Your task to perform on an android device: What's the weather going to be this weekend? Image 0: 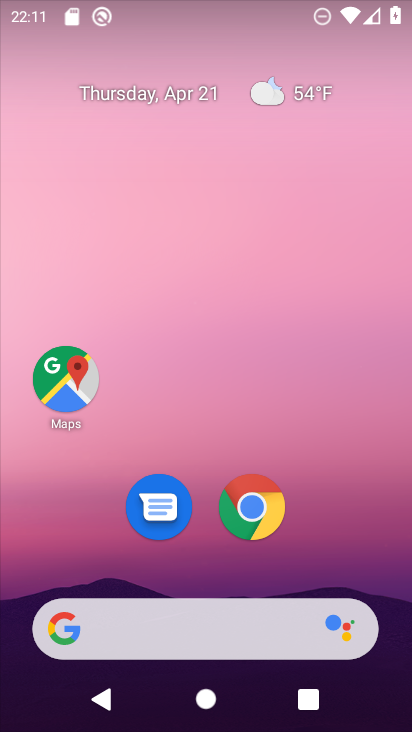
Step 0: click (136, 316)
Your task to perform on an android device: What's the weather going to be this weekend? Image 1: 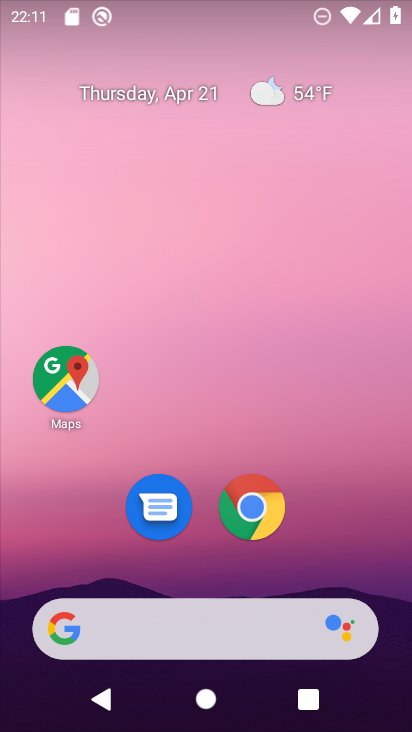
Step 1: drag from (247, 587) to (210, 294)
Your task to perform on an android device: What's the weather going to be this weekend? Image 2: 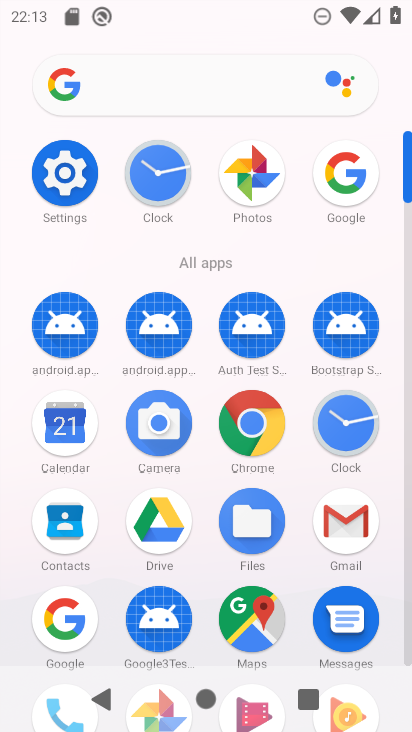
Step 2: click (64, 632)
Your task to perform on an android device: What's the weather going to be this weekend? Image 3: 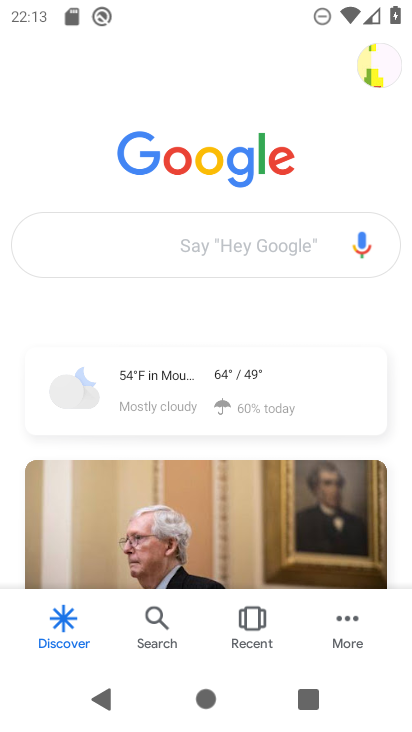
Step 3: click (145, 385)
Your task to perform on an android device: What's the weather going to be this weekend? Image 4: 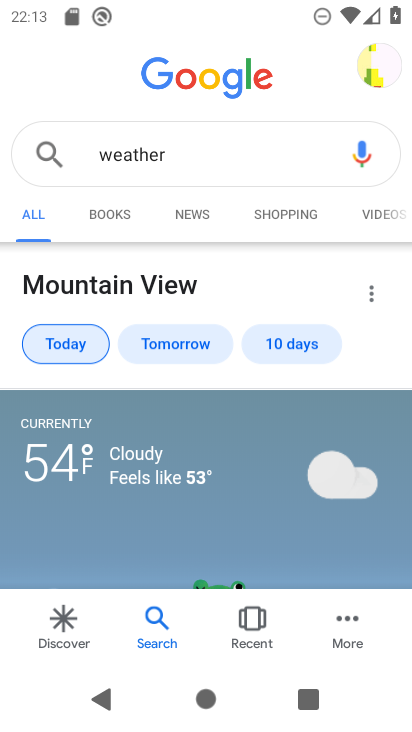
Step 4: click (271, 347)
Your task to perform on an android device: What's the weather going to be this weekend? Image 5: 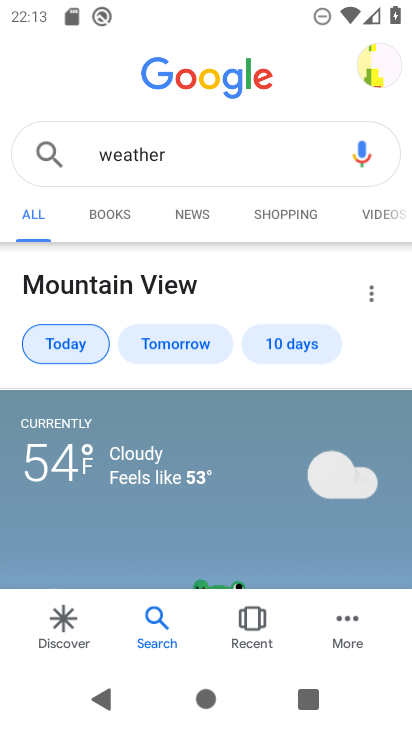
Step 5: click (271, 347)
Your task to perform on an android device: What's the weather going to be this weekend? Image 6: 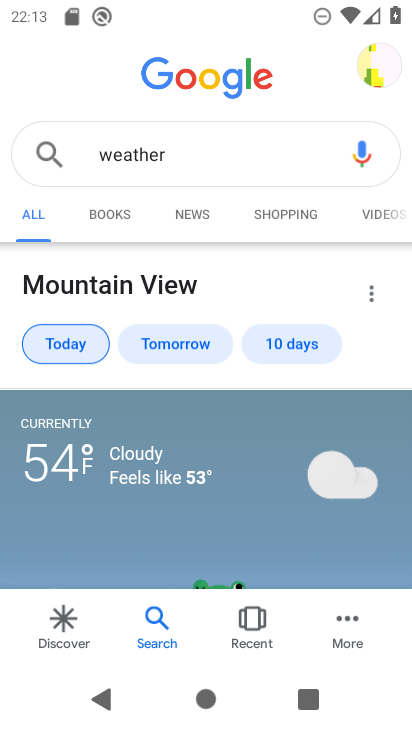
Step 6: click (309, 334)
Your task to perform on an android device: What's the weather going to be this weekend? Image 7: 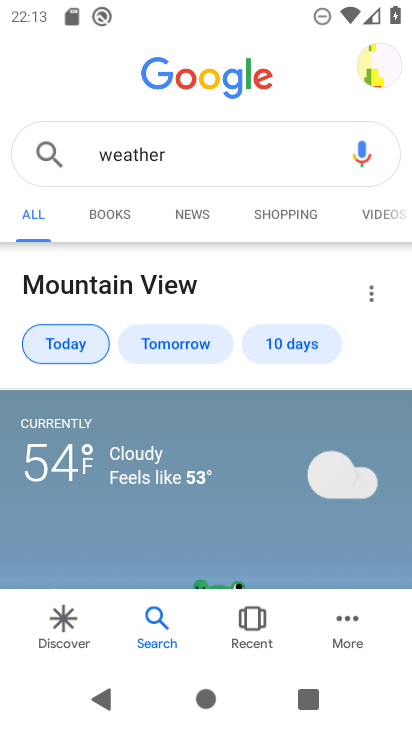
Step 7: task complete